Your task to perform on an android device: all mails in gmail Image 0: 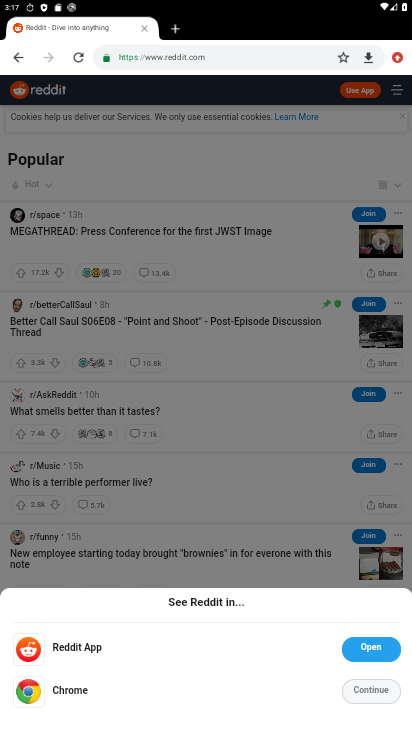
Step 0: press home button
Your task to perform on an android device: all mails in gmail Image 1: 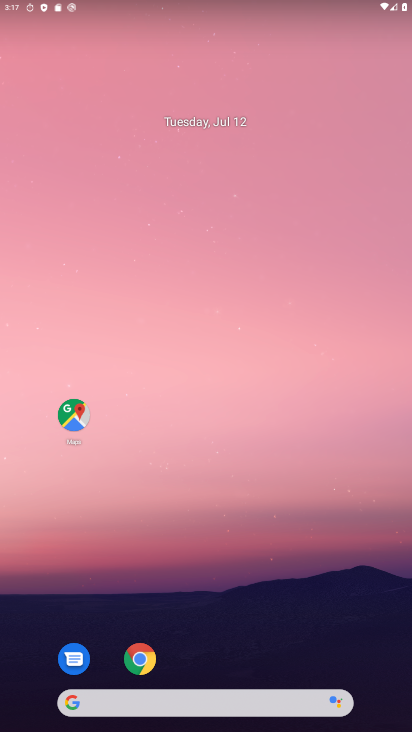
Step 1: drag from (354, 646) to (326, 123)
Your task to perform on an android device: all mails in gmail Image 2: 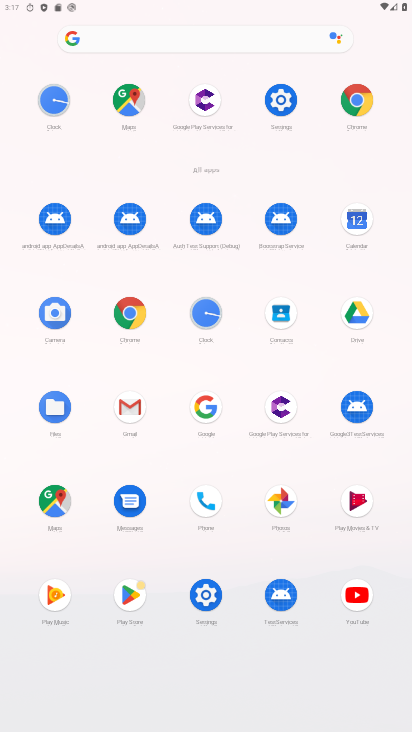
Step 2: click (133, 413)
Your task to perform on an android device: all mails in gmail Image 3: 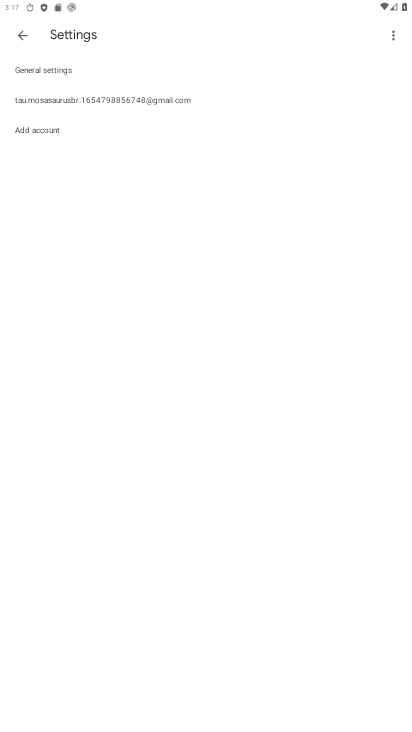
Step 3: click (21, 36)
Your task to perform on an android device: all mails in gmail Image 4: 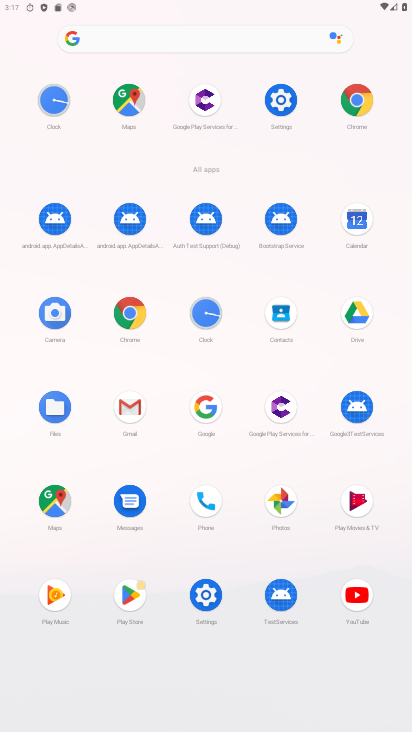
Step 4: click (135, 401)
Your task to perform on an android device: all mails in gmail Image 5: 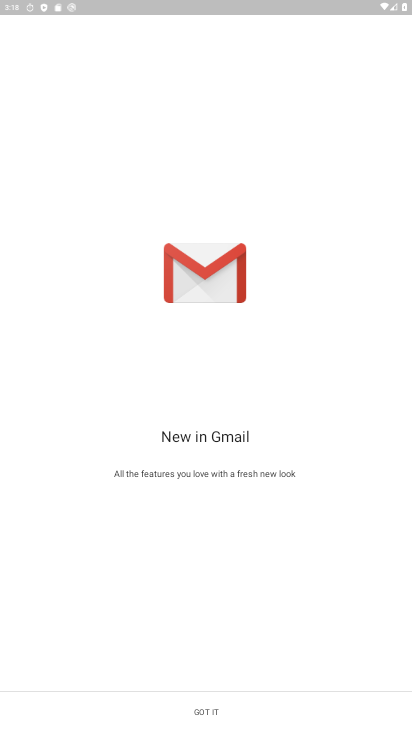
Step 5: click (207, 704)
Your task to perform on an android device: all mails in gmail Image 6: 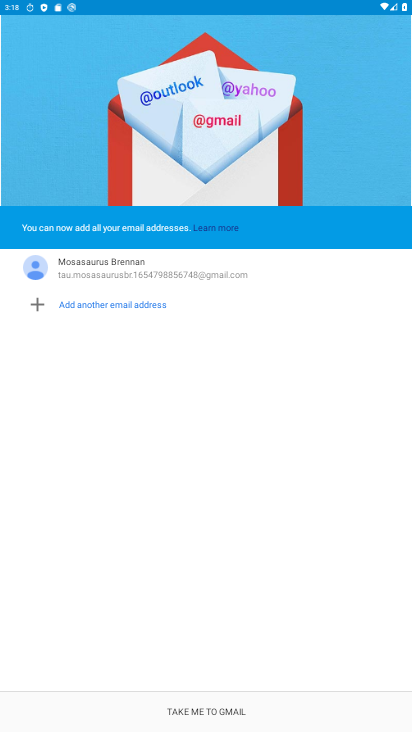
Step 6: click (207, 704)
Your task to perform on an android device: all mails in gmail Image 7: 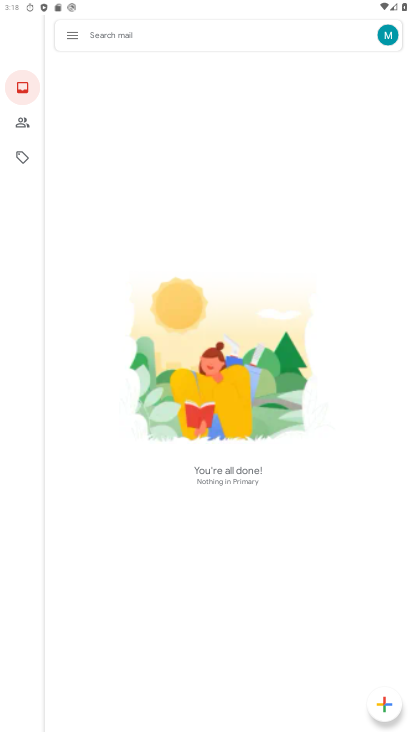
Step 7: click (71, 37)
Your task to perform on an android device: all mails in gmail Image 8: 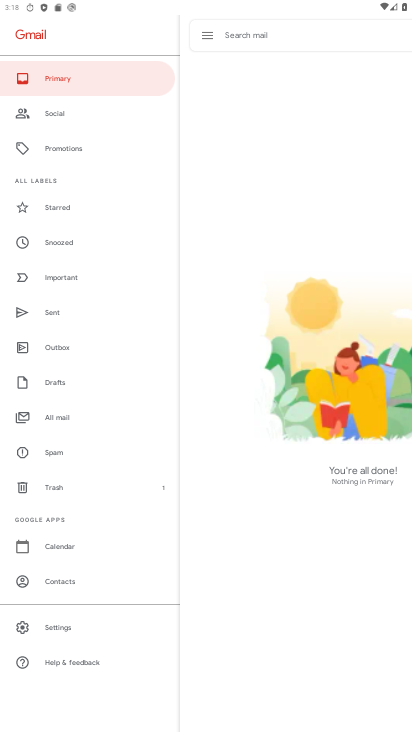
Step 8: click (66, 410)
Your task to perform on an android device: all mails in gmail Image 9: 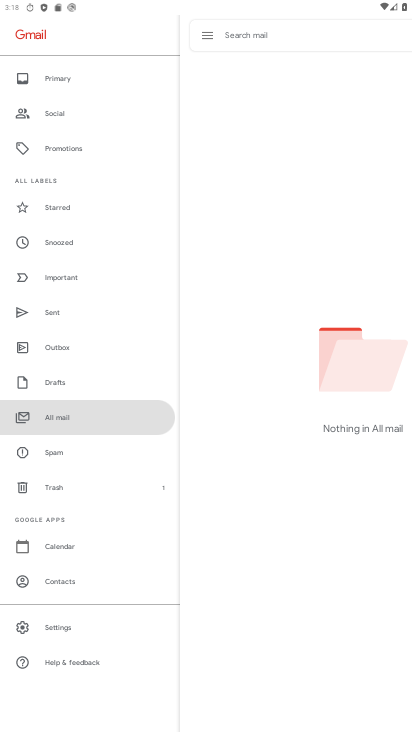
Step 9: task complete